Your task to perform on an android device: Open Google Maps Image 0: 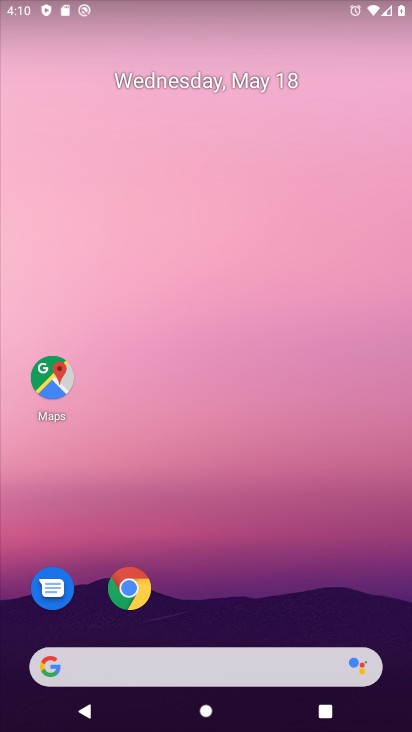
Step 0: drag from (230, 649) to (235, 570)
Your task to perform on an android device: Open Google Maps Image 1: 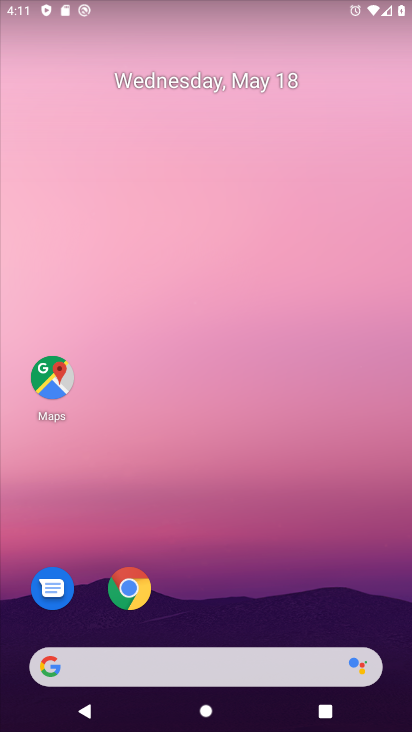
Step 1: click (56, 382)
Your task to perform on an android device: Open Google Maps Image 2: 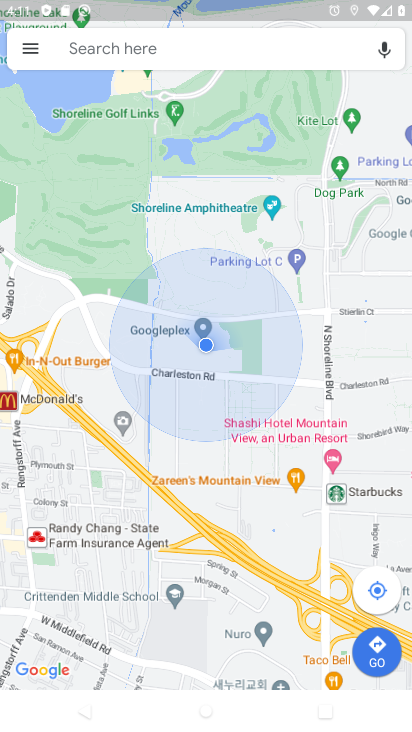
Step 2: task complete